Your task to perform on an android device: check storage Image 0: 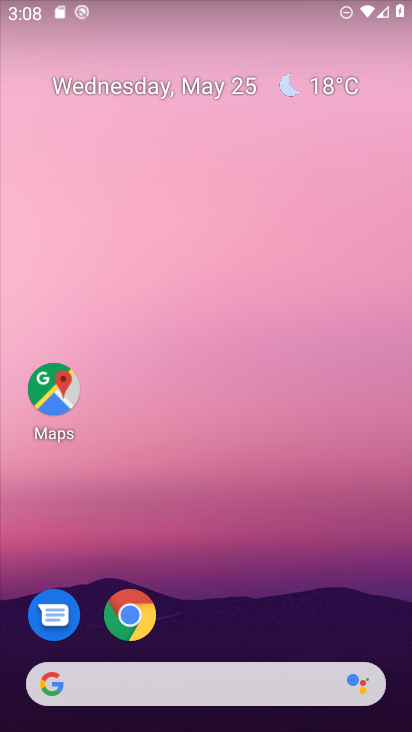
Step 0: drag from (268, 587) to (298, 30)
Your task to perform on an android device: check storage Image 1: 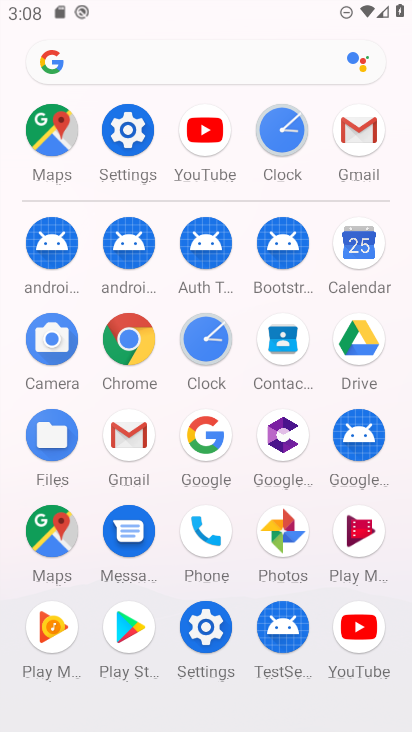
Step 1: click (128, 133)
Your task to perform on an android device: check storage Image 2: 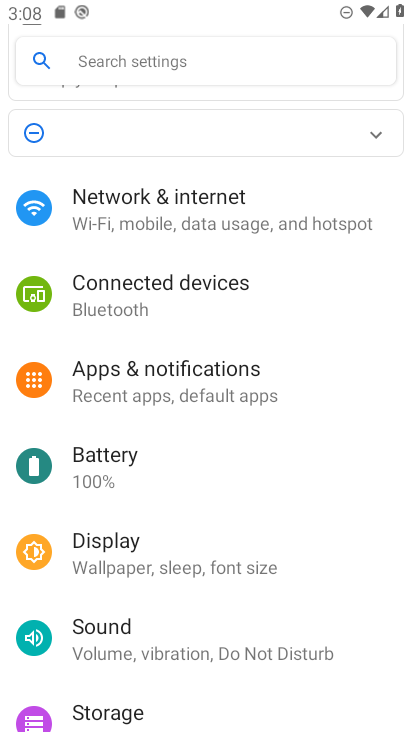
Step 2: drag from (231, 611) to (250, 240)
Your task to perform on an android device: check storage Image 3: 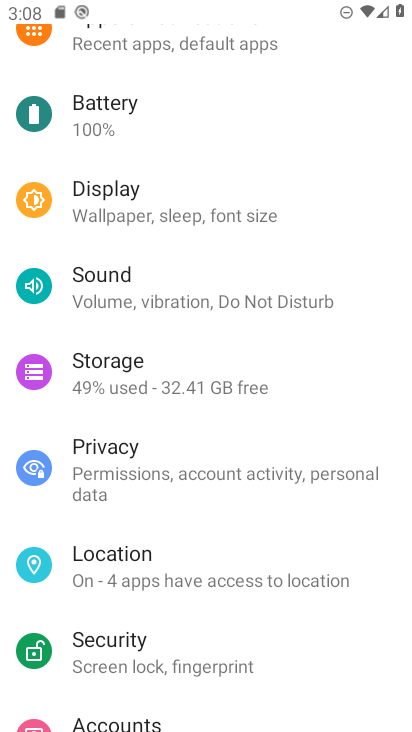
Step 3: click (230, 373)
Your task to perform on an android device: check storage Image 4: 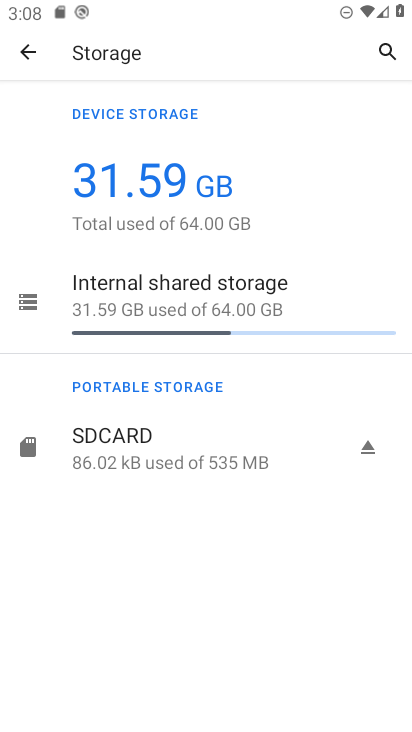
Step 4: task complete